Your task to perform on an android device: check the backup settings in the google photos Image 0: 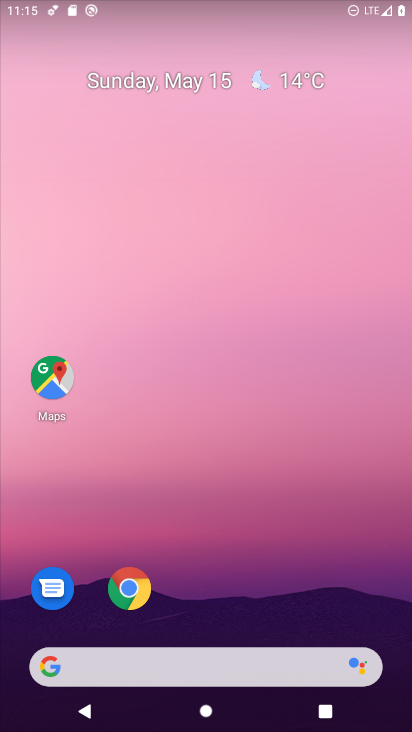
Step 0: drag from (234, 606) to (272, 14)
Your task to perform on an android device: check the backup settings in the google photos Image 1: 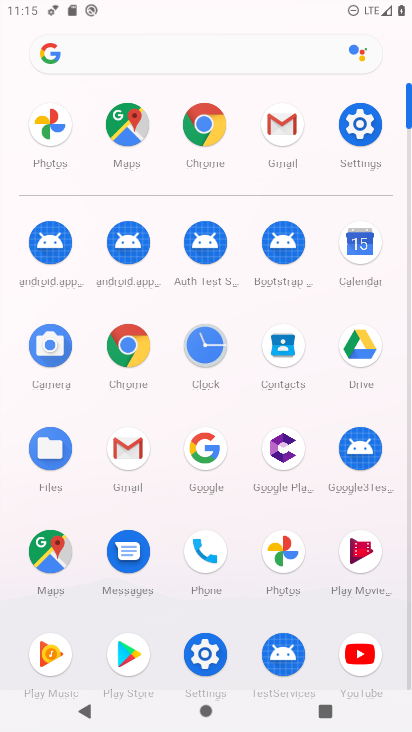
Step 1: click (280, 548)
Your task to perform on an android device: check the backup settings in the google photos Image 2: 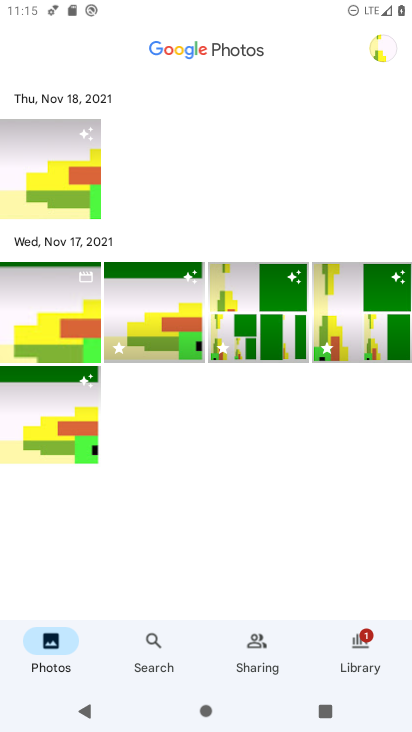
Step 2: click (385, 39)
Your task to perform on an android device: check the backup settings in the google photos Image 3: 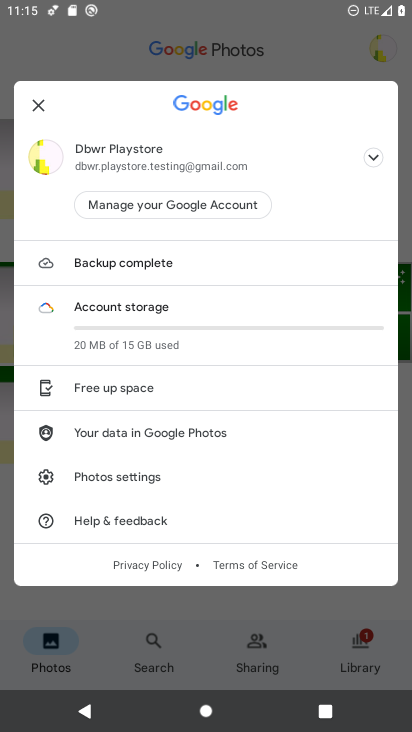
Step 3: click (120, 481)
Your task to perform on an android device: check the backup settings in the google photos Image 4: 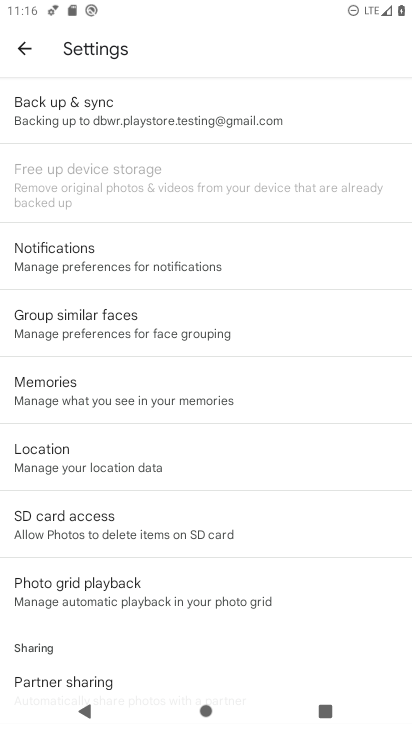
Step 4: click (121, 118)
Your task to perform on an android device: check the backup settings in the google photos Image 5: 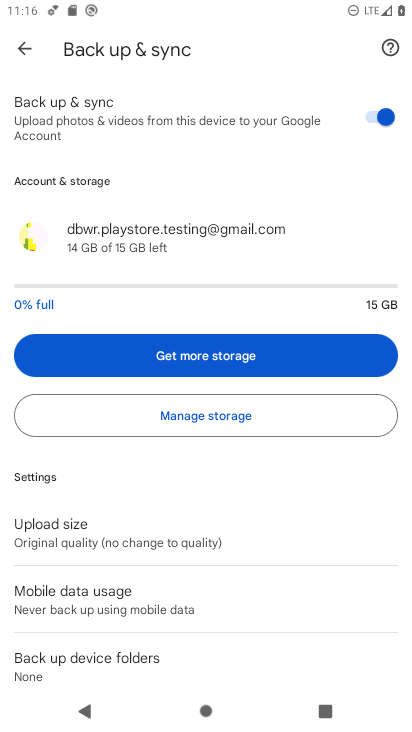
Step 5: task complete